Your task to perform on an android device: open app "Roku - Official Remote Control" (install if not already installed) Image 0: 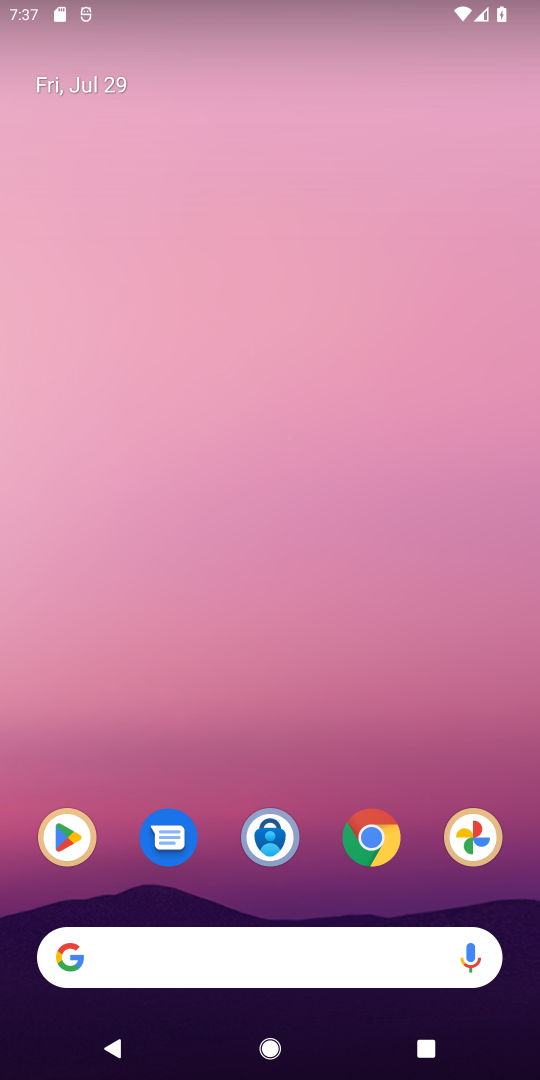
Step 0: click (57, 836)
Your task to perform on an android device: open app "Roku - Official Remote Control" (install if not already installed) Image 1: 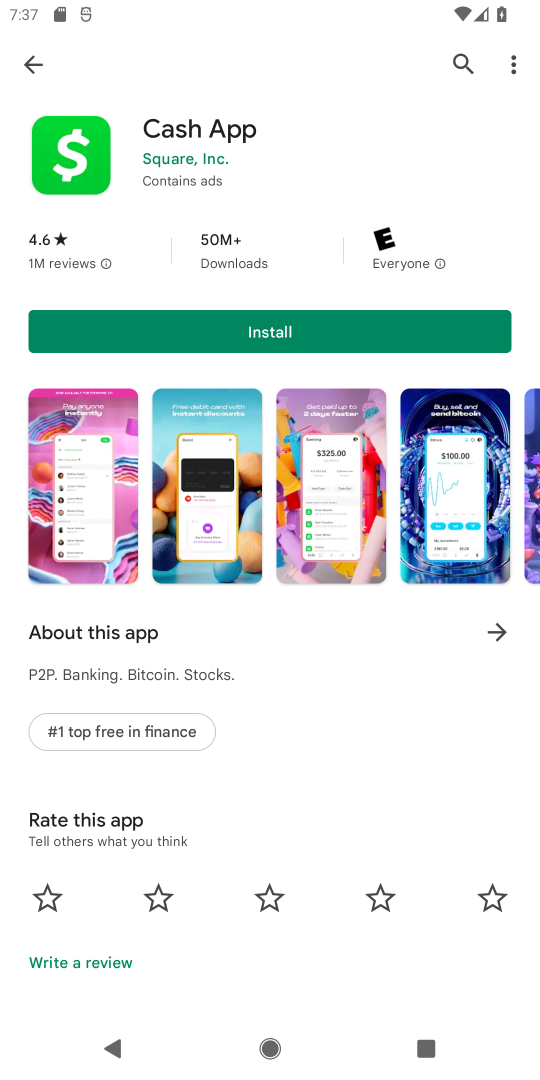
Step 1: click (448, 48)
Your task to perform on an android device: open app "Roku - Official Remote Control" (install if not already installed) Image 2: 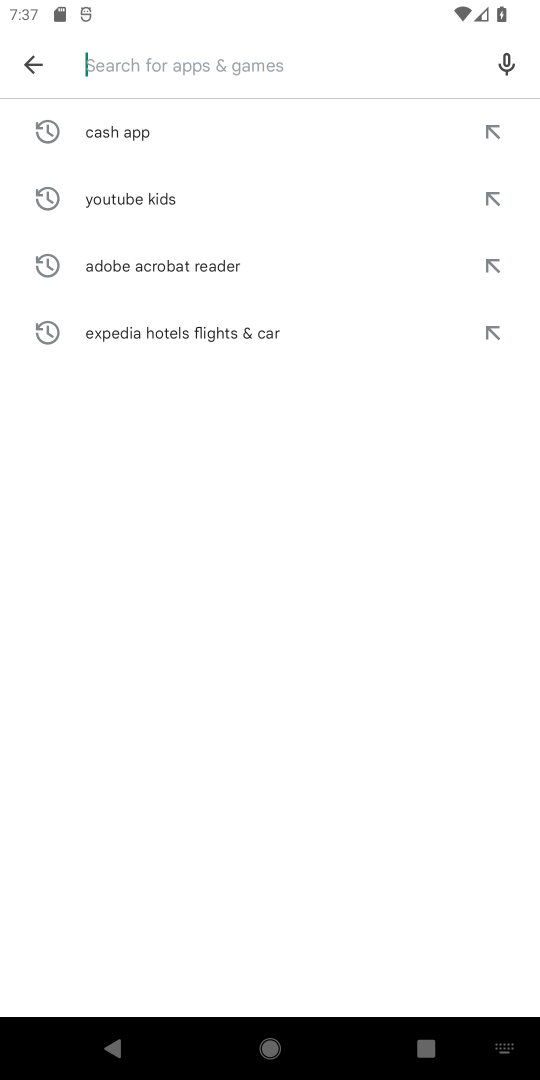
Step 2: type "Roku - official remote control "
Your task to perform on an android device: open app "Roku - Official Remote Control" (install if not already installed) Image 3: 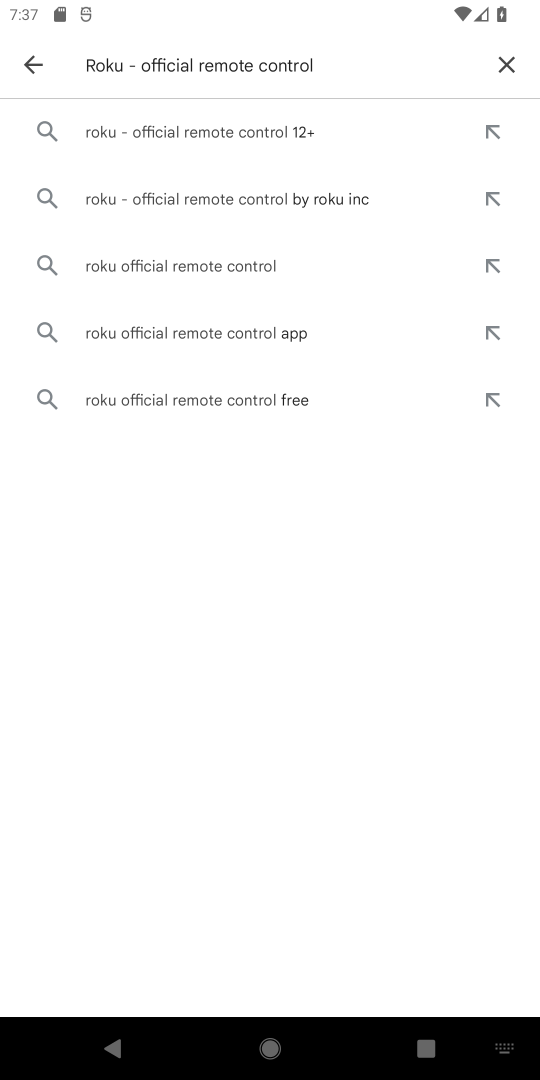
Step 3: click (185, 253)
Your task to perform on an android device: open app "Roku - Official Remote Control" (install if not already installed) Image 4: 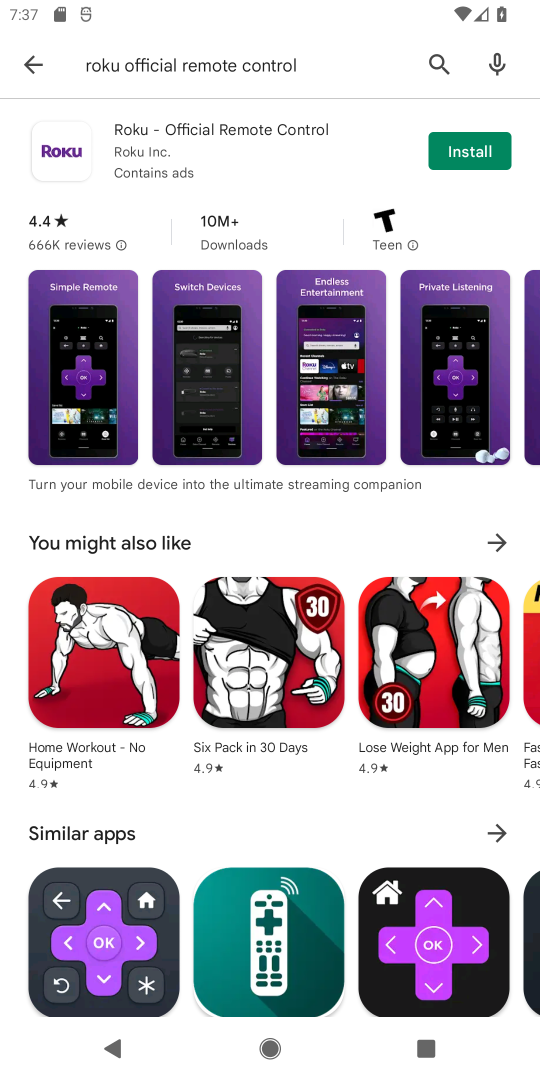
Step 4: click (282, 132)
Your task to perform on an android device: open app "Roku - Official Remote Control" (install if not already installed) Image 5: 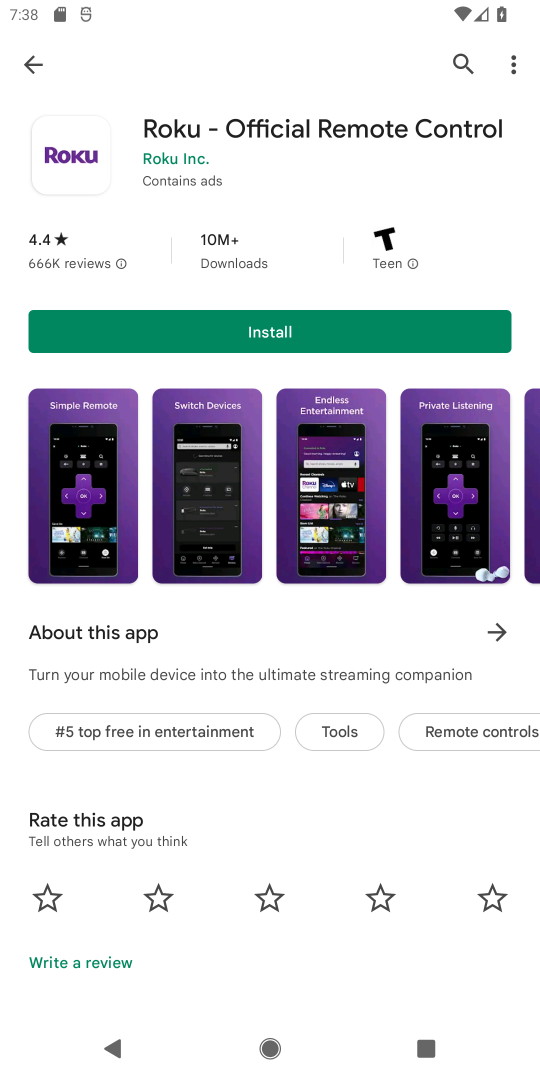
Step 5: click (249, 329)
Your task to perform on an android device: open app "Roku - Official Remote Control" (install if not already installed) Image 6: 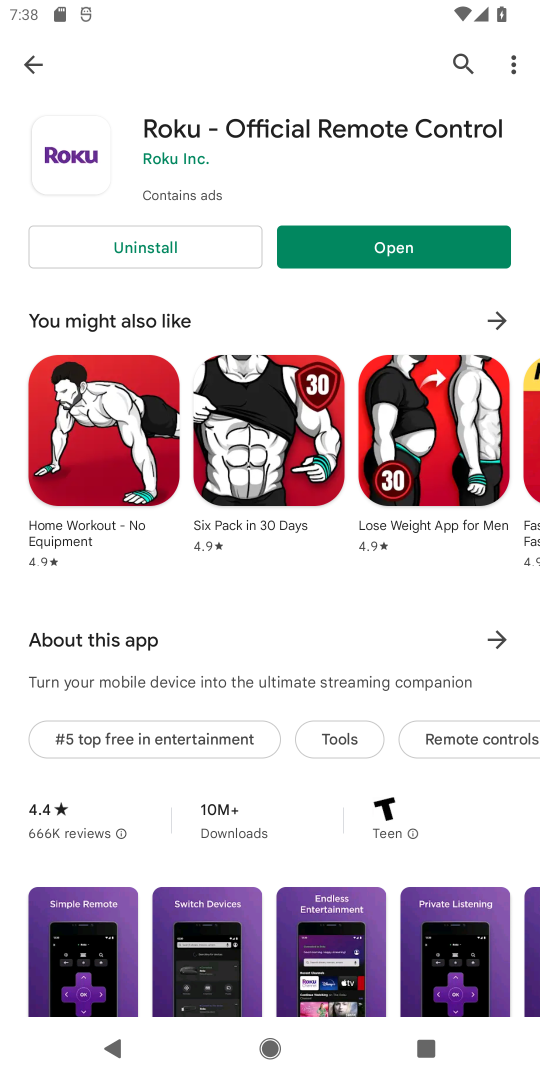
Step 6: click (479, 258)
Your task to perform on an android device: open app "Roku - Official Remote Control" (install if not already installed) Image 7: 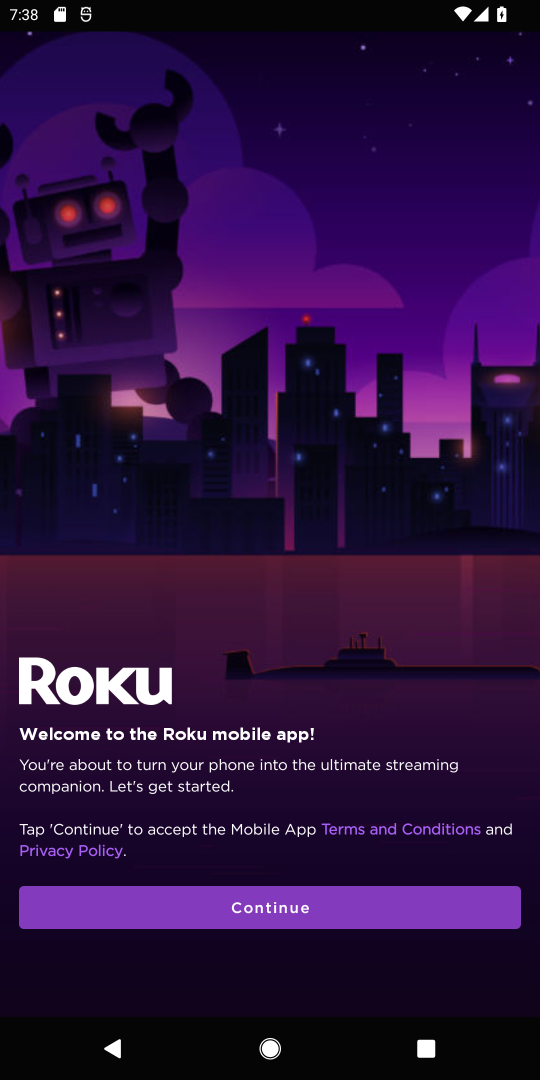
Step 7: task complete